Your task to perform on an android device: change keyboard looks Image 0: 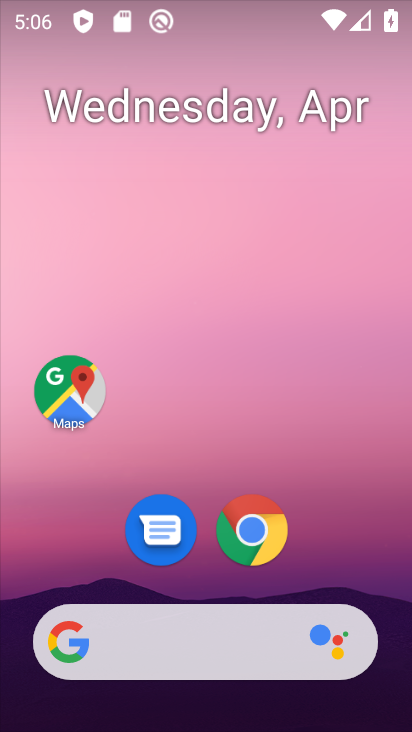
Step 0: drag from (304, 555) to (254, 13)
Your task to perform on an android device: change keyboard looks Image 1: 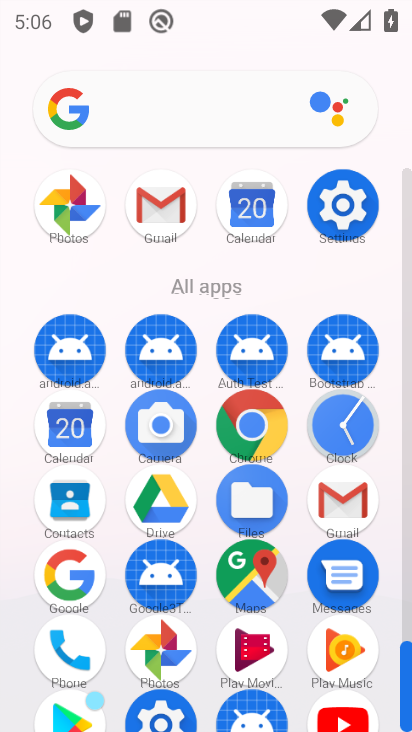
Step 1: click (344, 207)
Your task to perform on an android device: change keyboard looks Image 2: 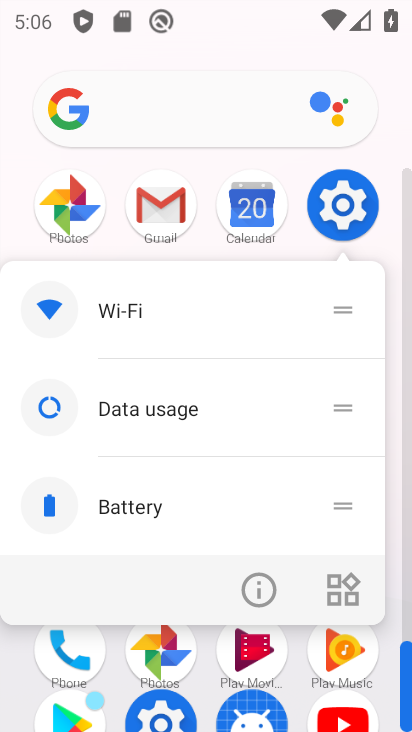
Step 2: click (344, 207)
Your task to perform on an android device: change keyboard looks Image 3: 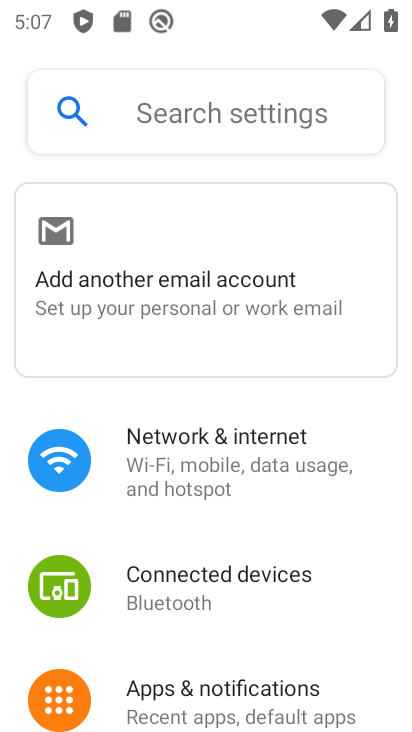
Step 3: drag from (250, 623) to (324, 420)
Your task to perform on an android device: change keyboard looks Image 4: 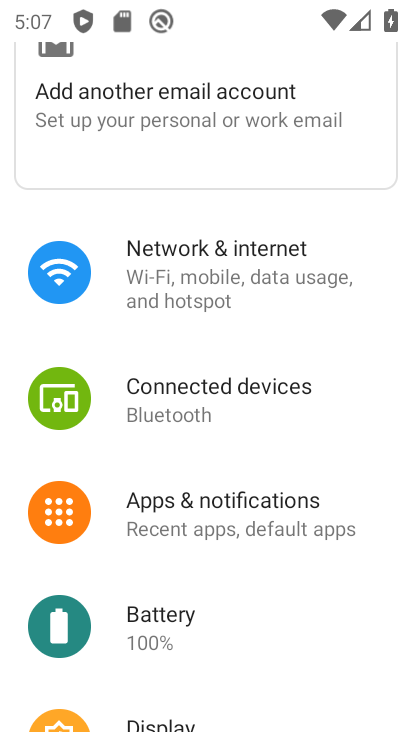
Step 4: drag from (225, 588) to (260, 406)
Your task to perform on an android device: change keyboard looks Image 5: 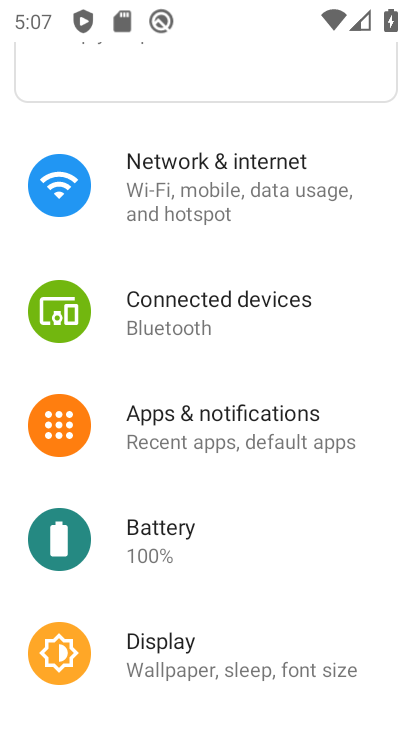
Step 5: drag from (235, 601) to (253, 419)
Your task to perform on an android device: change keyboard looks Image 6: 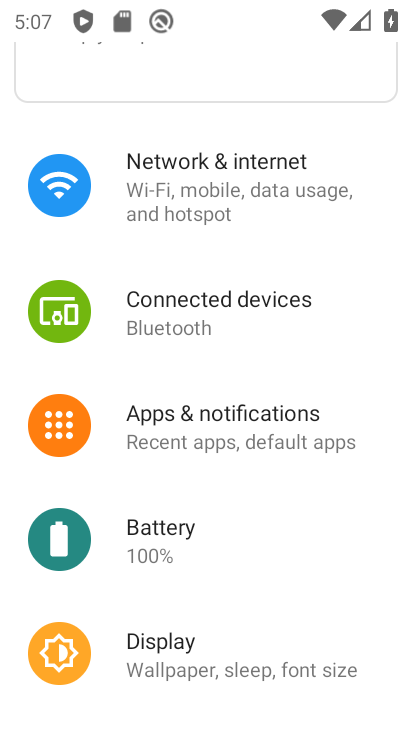
Step 6: drag from (236, 585) to (281, 371)
Your task to perform on an android device: change keyboard looks Image 7: 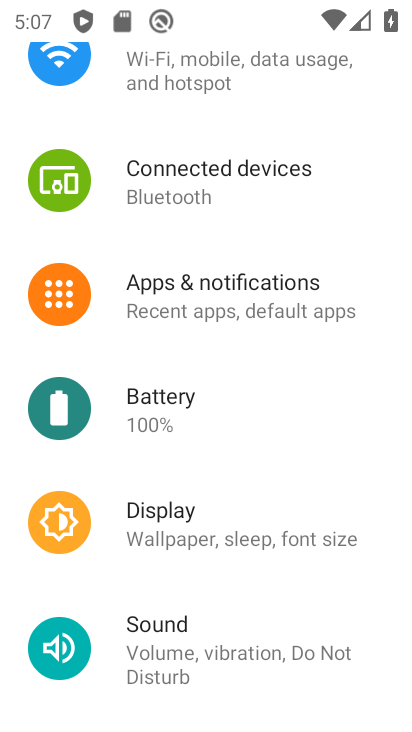
Step 7: drag from (230, 582) to (264, 370)
Your task to perform on an android device: change keyboard looks Image 8: 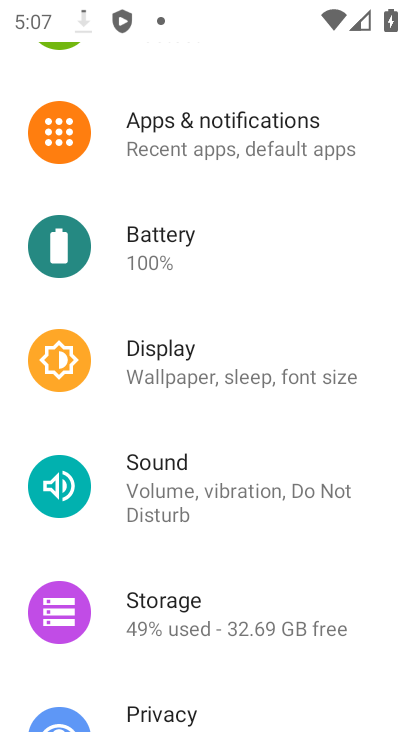
Step 8: drag from (220, 540) to (258, 393)
Your task to perform on an android device: change keyboard looks Image 9: 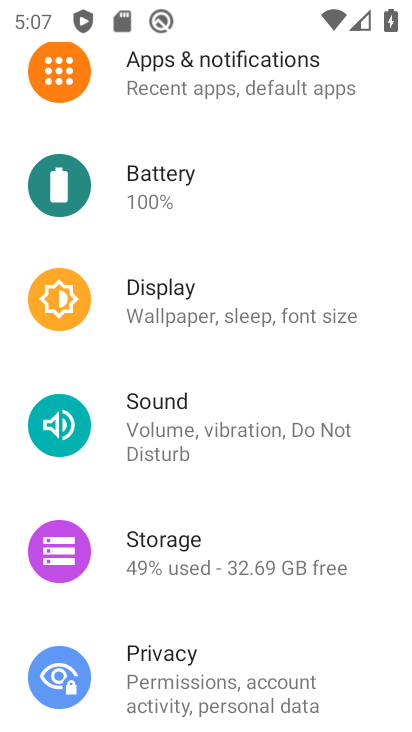
Step 9: drag from (242, 525) to (298, 353)
Your task to perform on an android device: change keyboard looks Image 10: 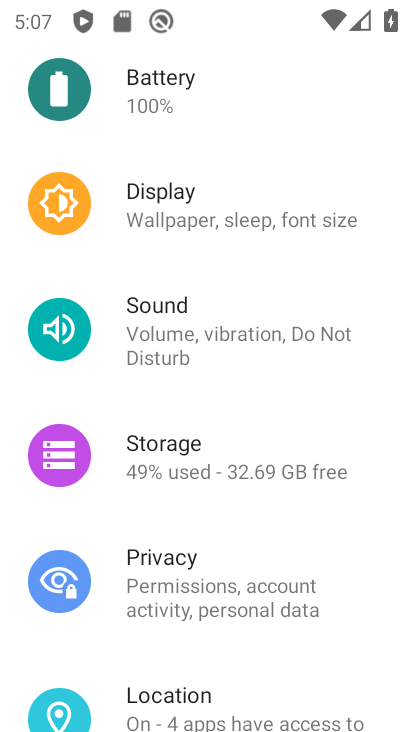
Step 10: drag from (216, 536) to (254, 365)
Your task to perform on an android device: change keyboard looks Image 11: 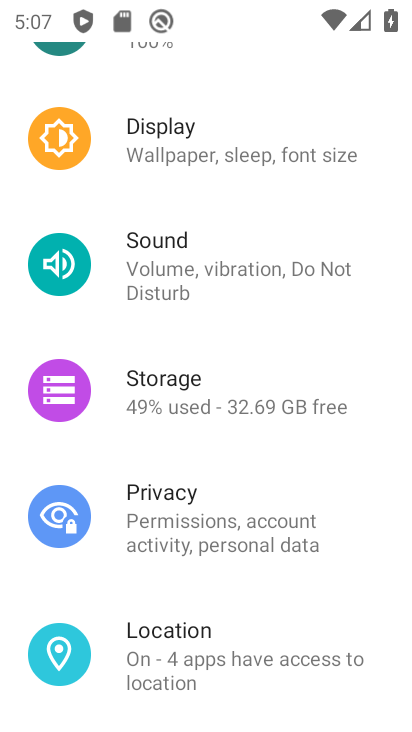
Step 11: drag from (210, 609) to (257, 417)
Your task to perform on an android device: change keyboard looks Image 12: 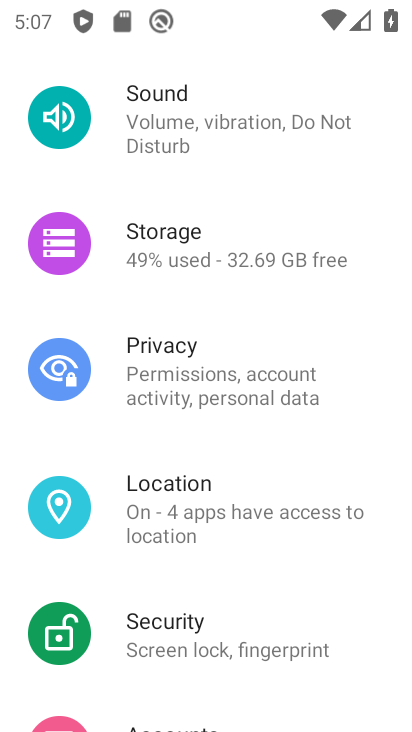
Step 12: drag from (208, 579) to (240, 434)
Your task to perform on an android device: change keyboard looks Image 13: 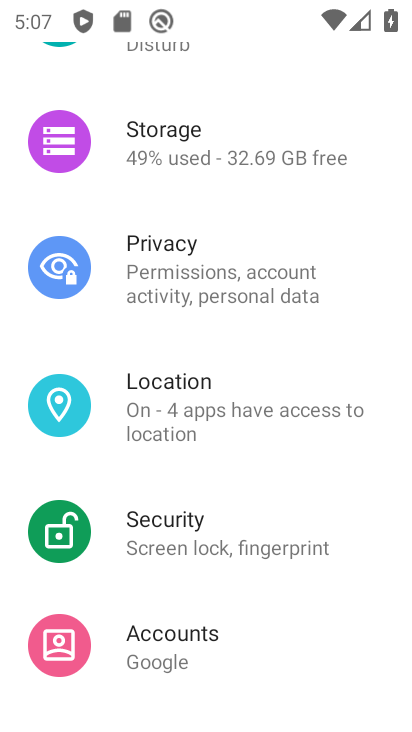
Step 13: drag from (190, 601) to (236, 460)
Your task to perform on an android device: change keyboard looks Image 14: 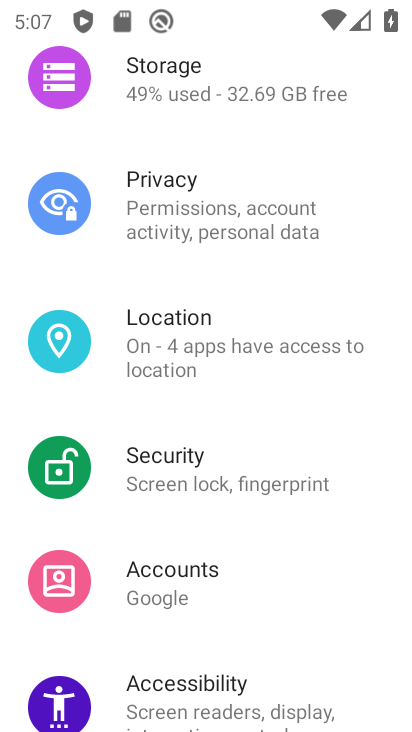
Step 14: drag from (195, 614) to (227, 461)
Your task to perform on an android device: change keyboard looks Image 15: 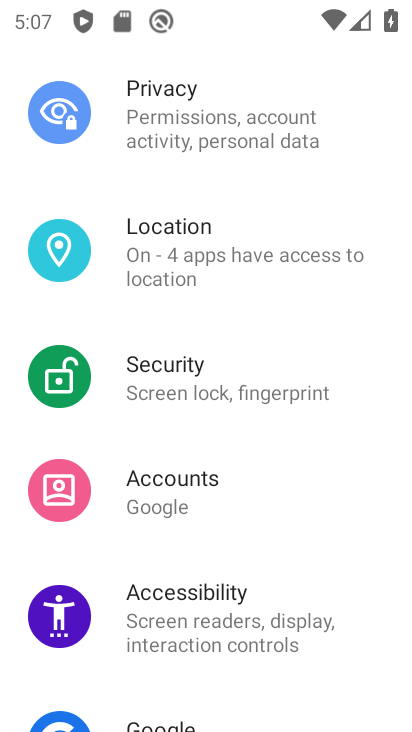
Step 15: drag from (177, 663) to (238, 462)
Your task to perform on an android device: change keyboard looks Image 16: 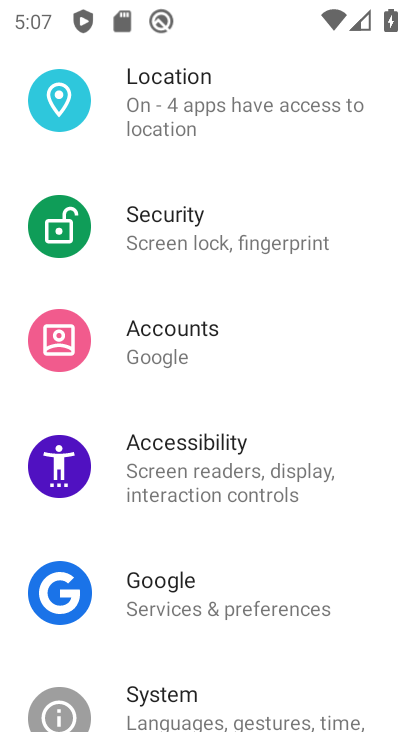
Step 16: drag from (186, 665) to (239, 483)
Your task to perform on an android device: change keyboard looks Image 17: 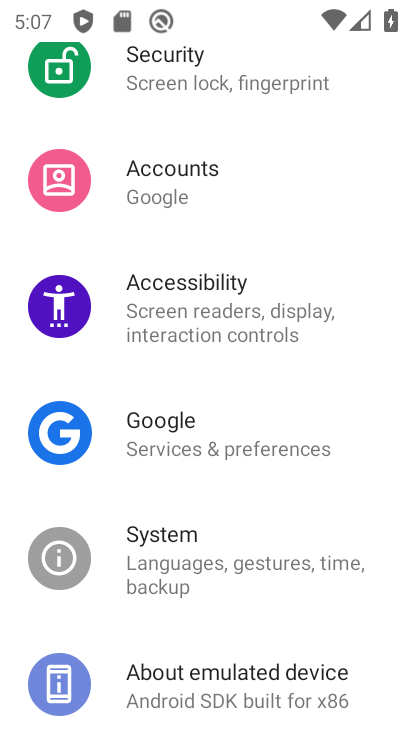
Step 17: click (175, 531)
Your task to perform on an android device: change keyboard looks Image 18: 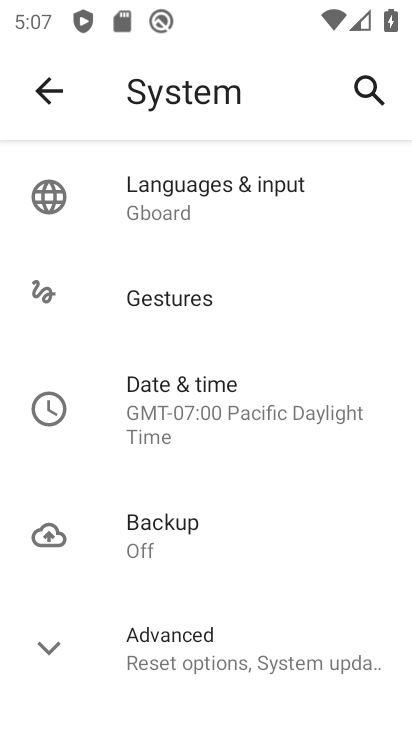
Step 18: click (246, 191)
Your task to perform on an android device: change keyboard looks Image 19: 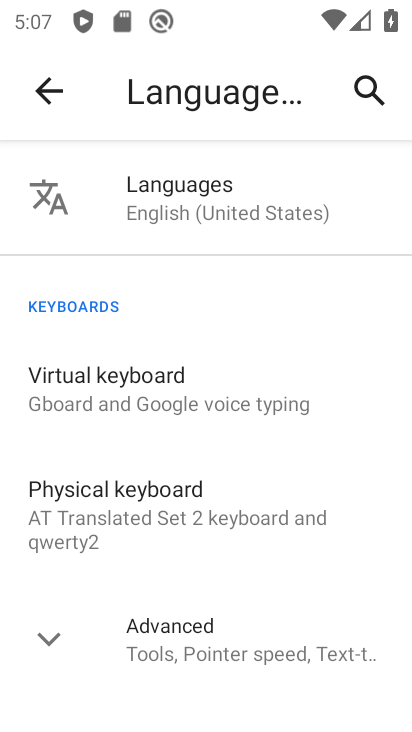
Step 19: click (200, 393)
Your task to perform on an android device: change keyboard looks Image 20: 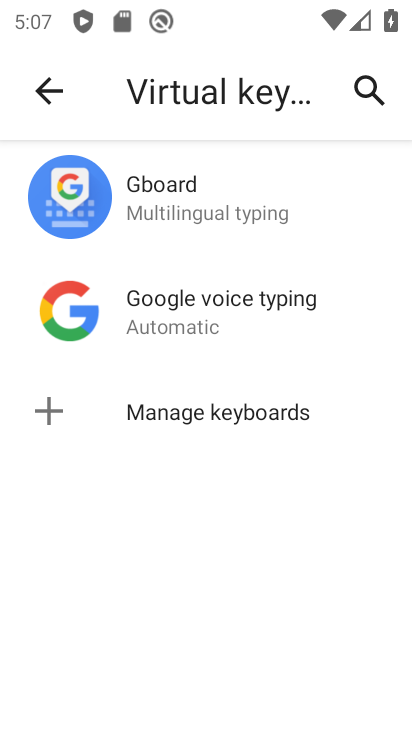
Step 20: click (194, 218)
Your task to perform on an android device: change keyboard looks Image 21: 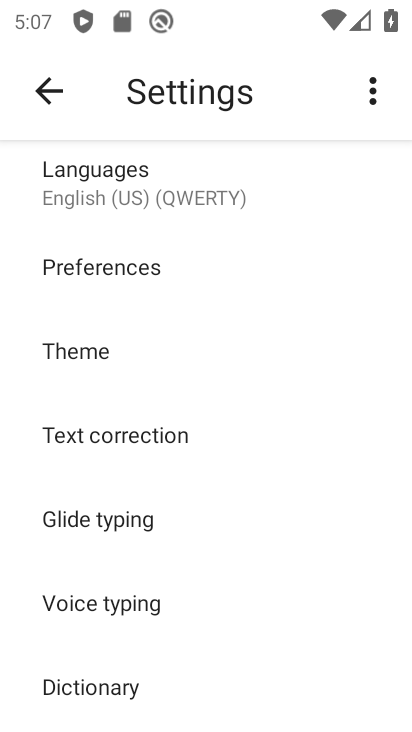
Step 21: click (109, 354)
Your task to perform on an android device: change keyboard looks Image 22: 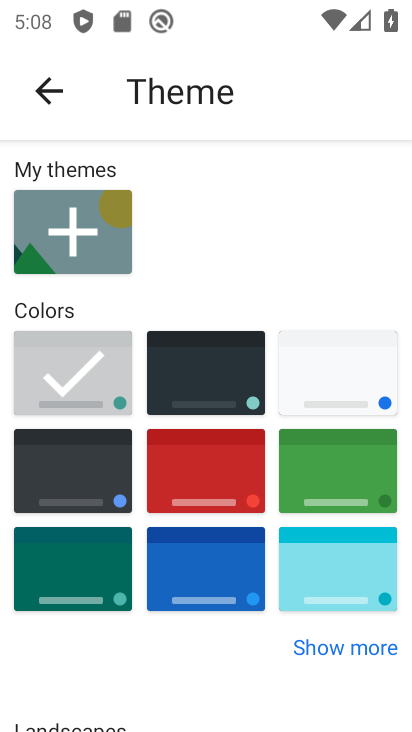
Step 22: click (198, 480)
Your task to perform on an android device: change keyboard looks Image 23: 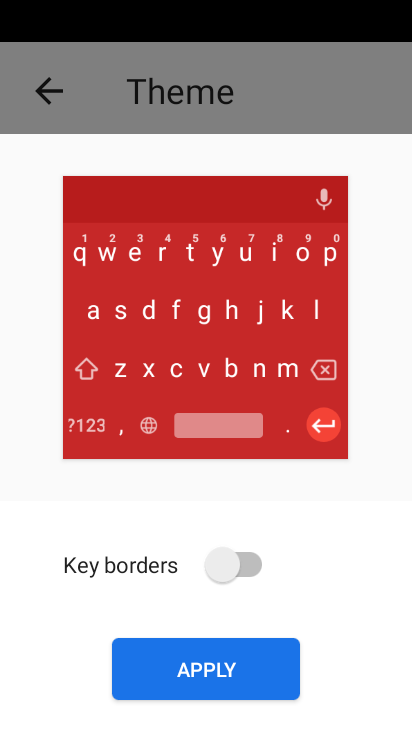
Step 23: click (241, 560)
Your task to perform on an android device: change keyboard looks Image 24: 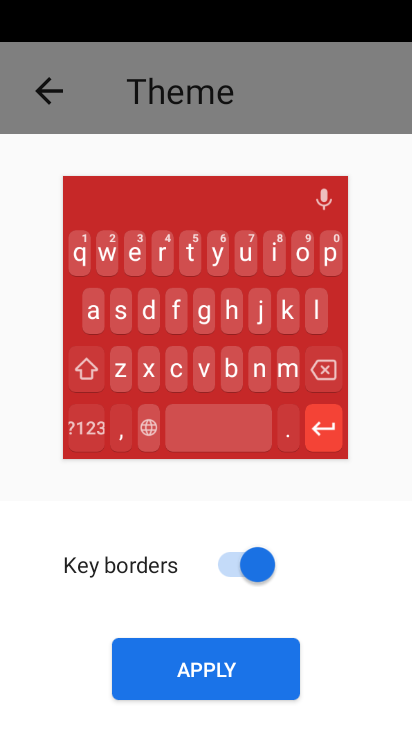
Step 24: click (263, 656)
Your task to perform on an android device: change keyboard looks Image 25: 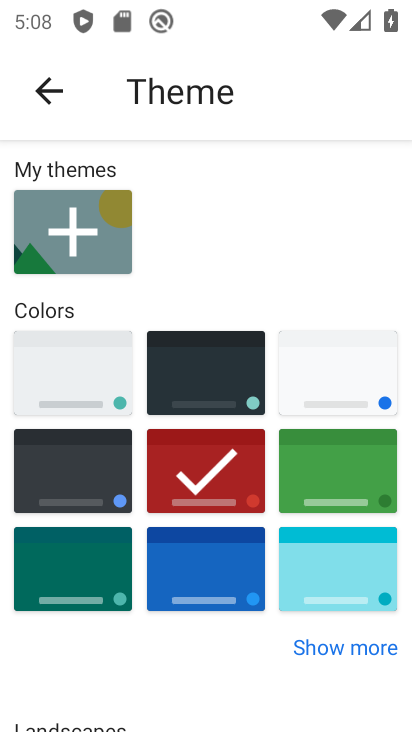
Step 25: task complete